Your task to perform on an android device: change text size in settings app Image 0: 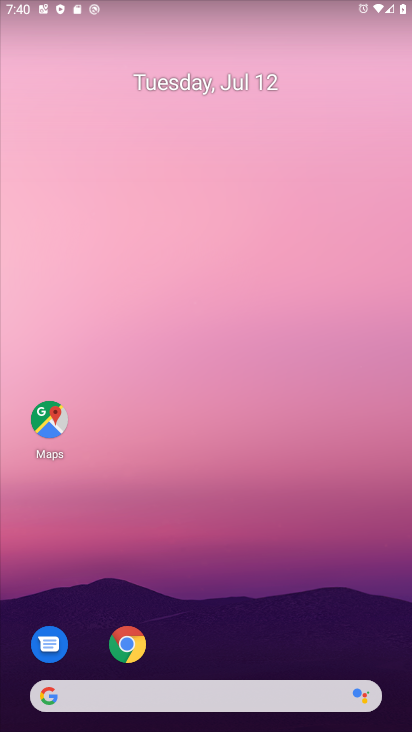
Step 0: drag from (243, 579) to (256, 144)
Your task to perform on an android device: change text size in settings app Image 1: 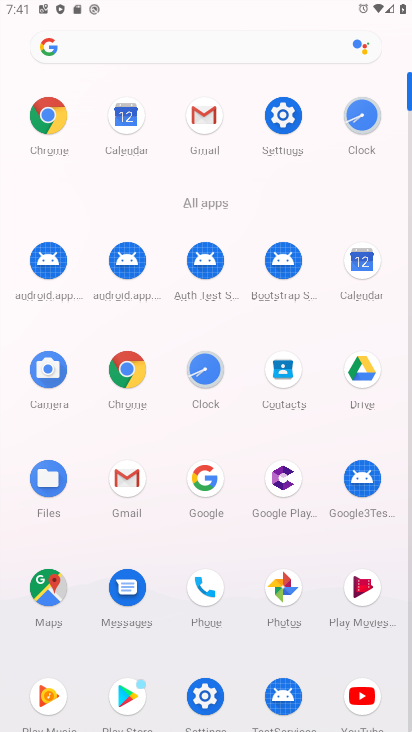
Step 1: click (276, 112)
Your task to perform on an android device: change text size in settings app Image 2: 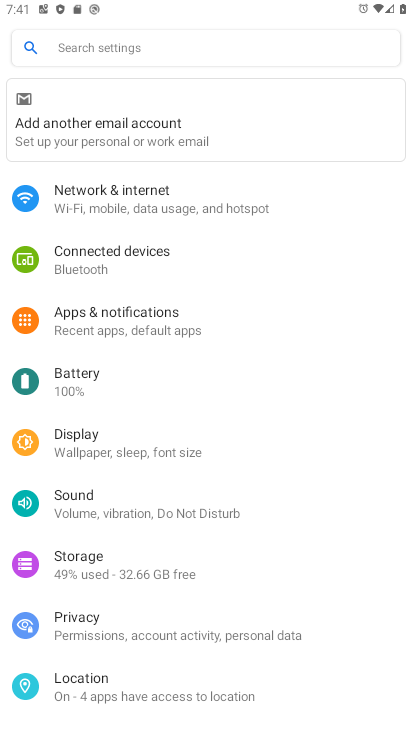
Step 2: drag from (153, 700) to (167, 389)
Your task to perform on an android device: change text size in settings app Image 3: 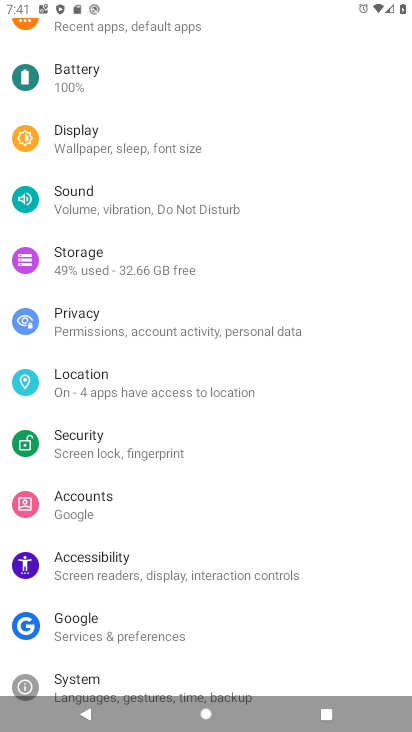
Step 3: click (114, 569)
Your task to perform on an android device: change text size in settings app Image 4: 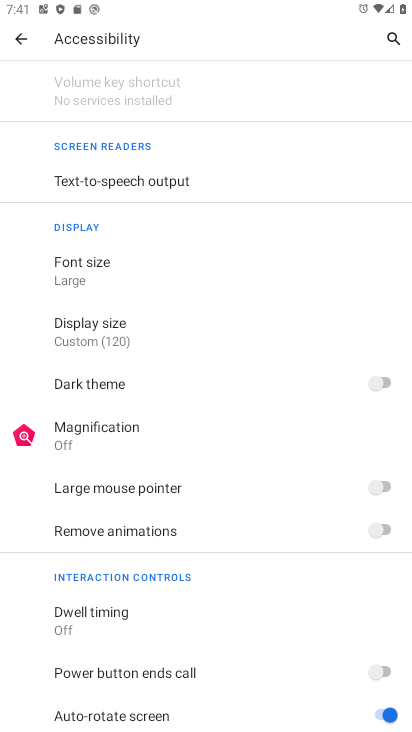
Step 4: click (88, 280)
Your task to perform on an android device: change text size in settings app Image 5: 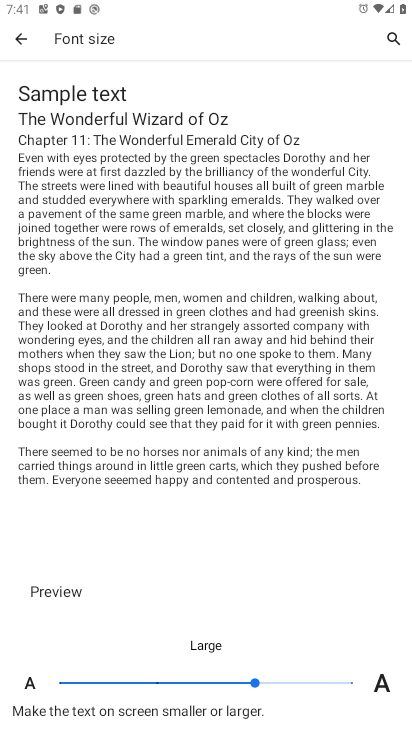
Step 5: click (230, 680)
Your task to perform on an android device: change text size in settings app Image 6: 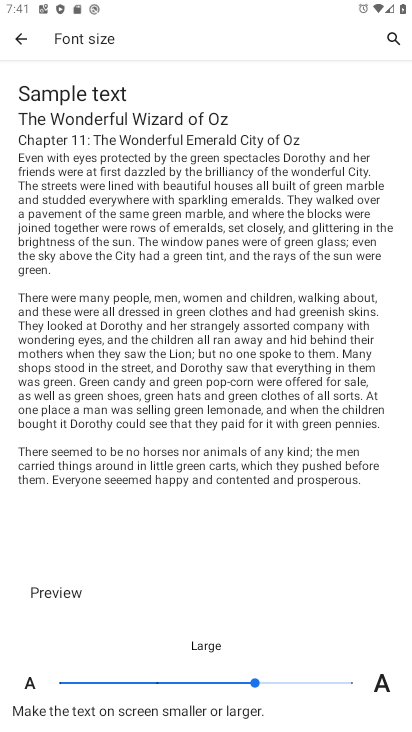
Step 6: click (154, 678)
Your task to perform on an android device: change text size in settings app Image 7: 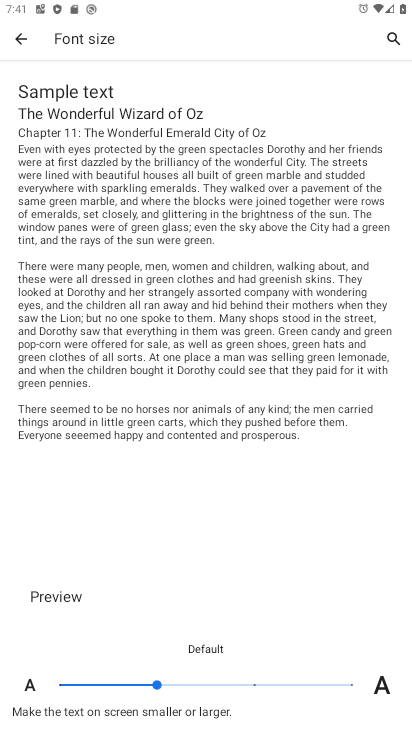
Step 7: task complete